Your task to perform on an android device: add a contact Image 0: 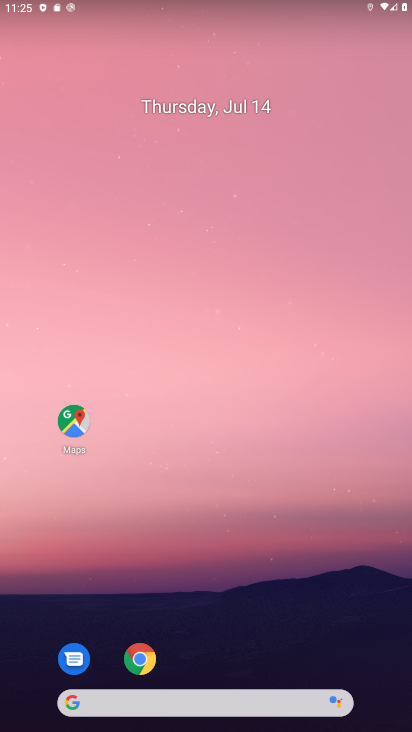
Step 0: drag from (236, 576) to (219, 331)
Your task to perform on an android device: add a contact Image 1: 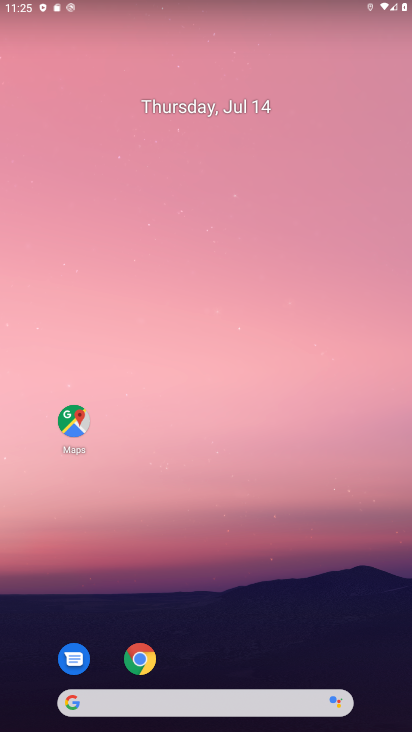
Step 1: drag from (256, 612) to (260, 265)
Your task to perform on an android device: add a contact Image 2: 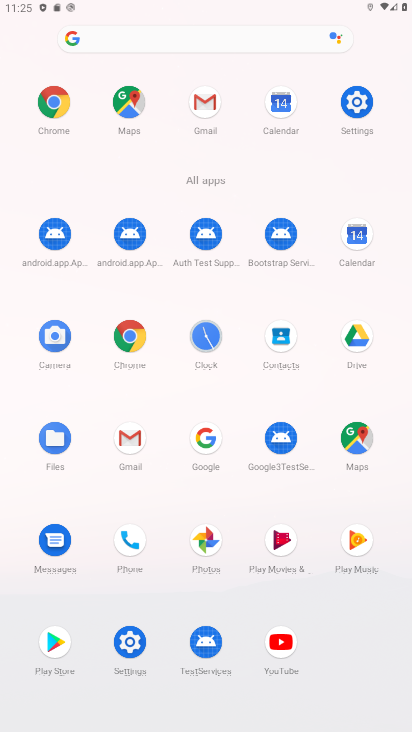
Step 2: click (118, 535)
Your task to perform on an android device: add a contact Image 3: 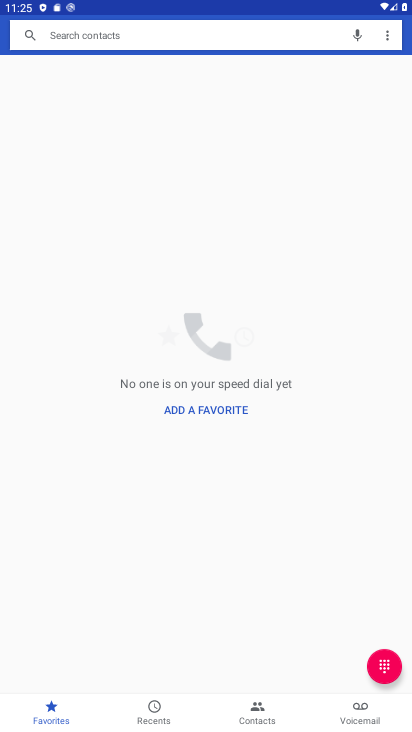
Step 3: click (223, 415)
Your task to perform on an android device: add a contact Image 4: 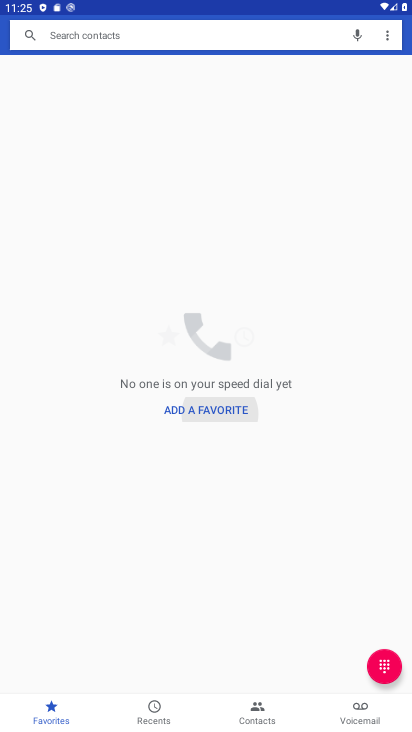
Step 4: click (221, 407)
Your task to perform on an android device: add a contact Image 5: 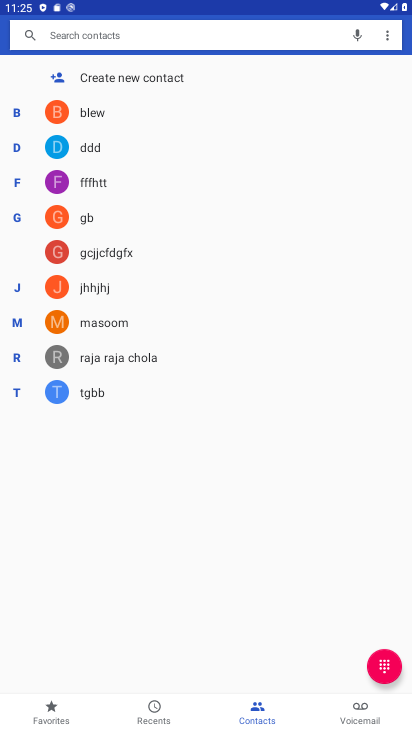
Step 5: click (134, 65)
Your task to perform on an android device: add a contact Image 6: 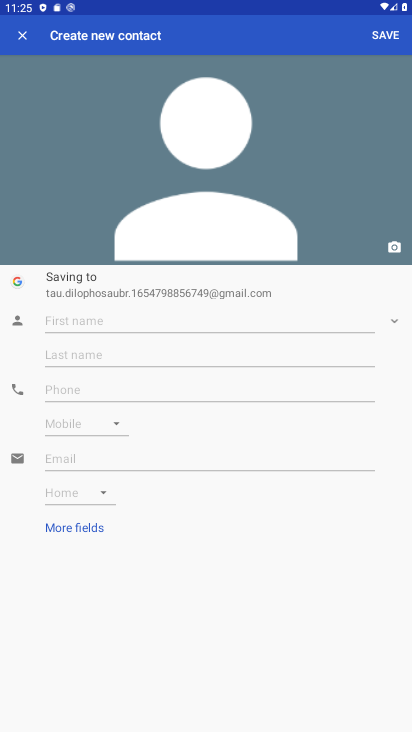
Step 6: click (174, 320)
Your task to perform on an android device: add a contact Image 7: 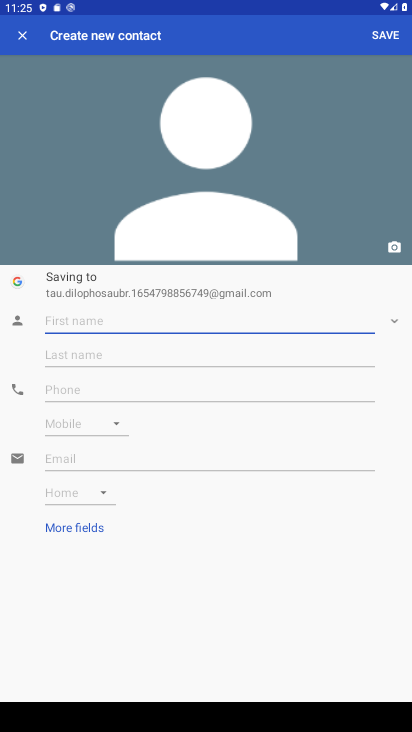
Step 7: type "nick "
Your task to perform on an android device: add a contact Image 8: 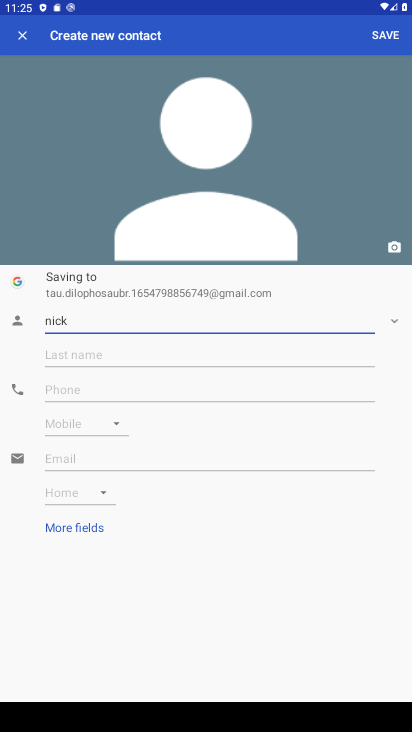
Step 8: click (95, 388)
Your task to perform on an android device: add a contact Image 9: 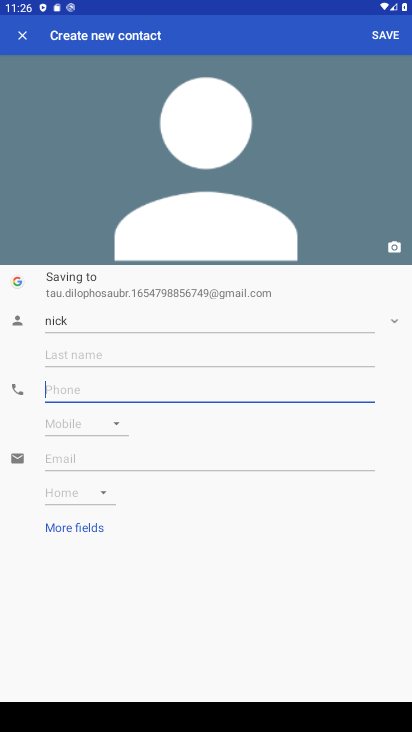
Step 9: type "0987654321"
Your task to perform on an android device: add a contact Image 10: 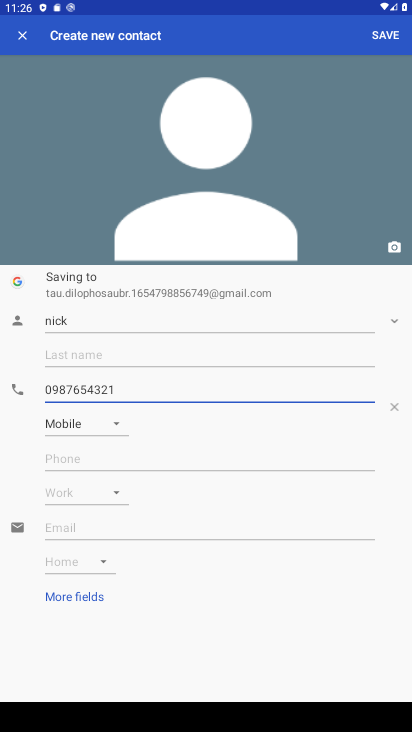
Step 10: click (395, 27)
Your task to perform on an android device: add a contact Image 11: 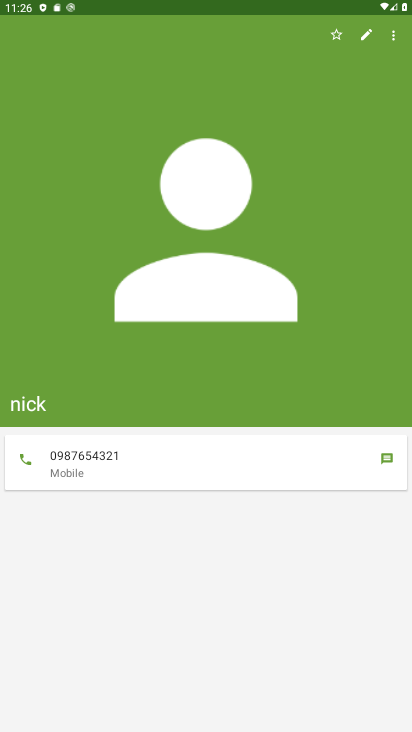
Step 11: task complete